Your task to perform on an android device: open sync settings in chrome Image 0: 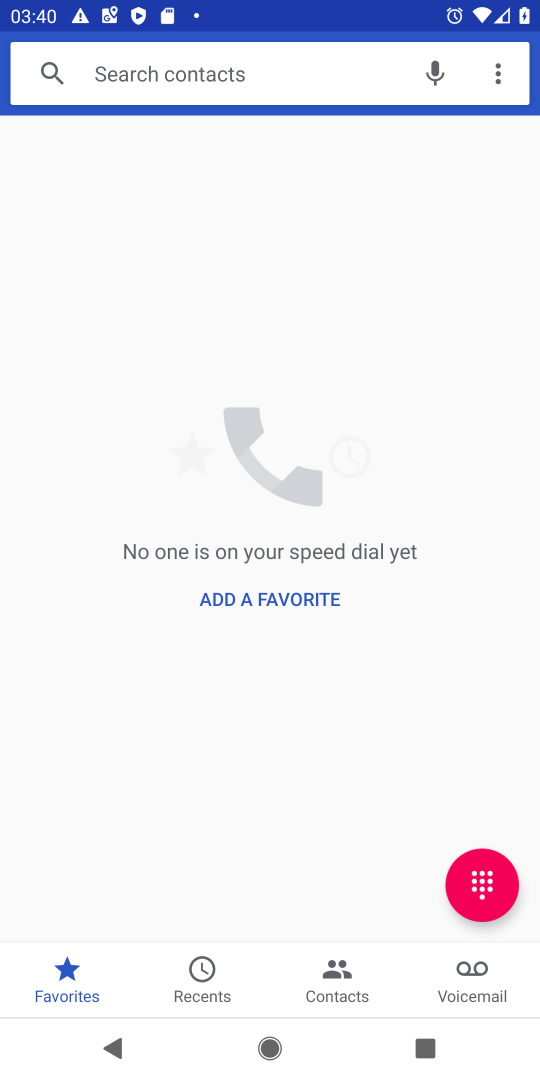
Step 0: press home button
Your task to perform on an android device: open sync settings in chrome Image 1: 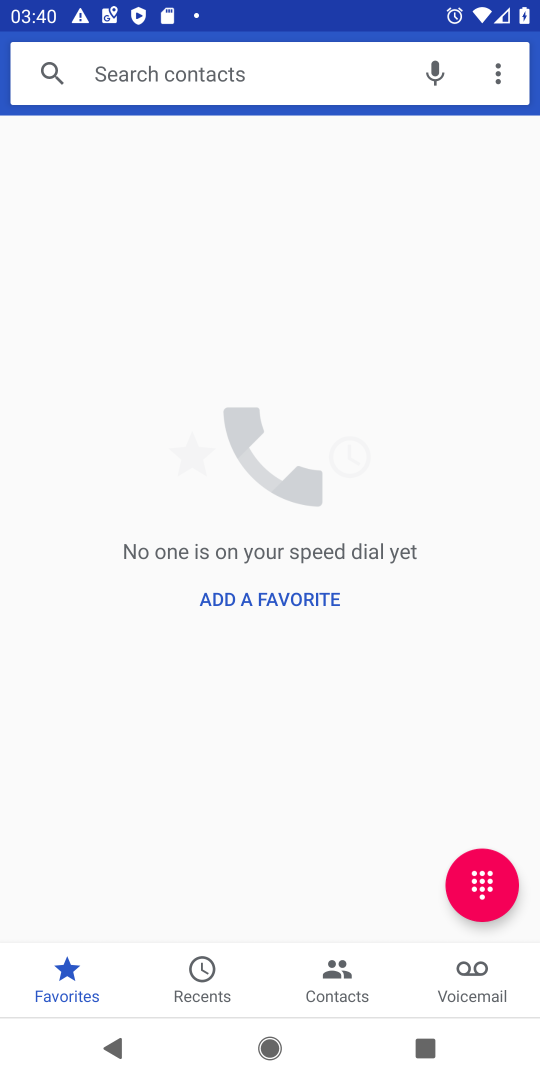
Step 1: press home button
Your task to perform on an android device: open sync settings in chrome Image 2: 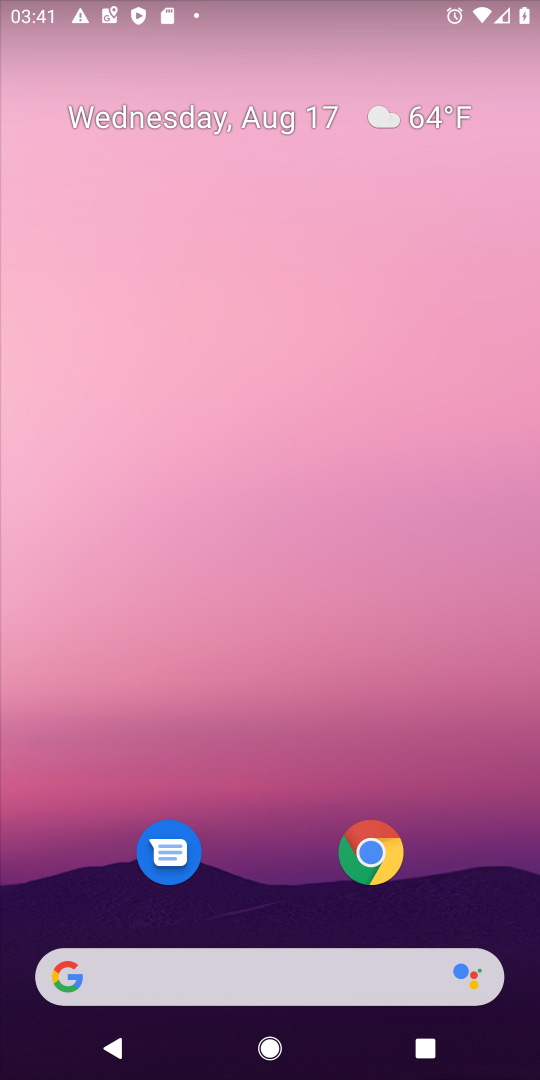
Step 2: drag from (288, 785) to (320, 230)
Your task to perform on an android device: open sync settings in chrome Image 3: 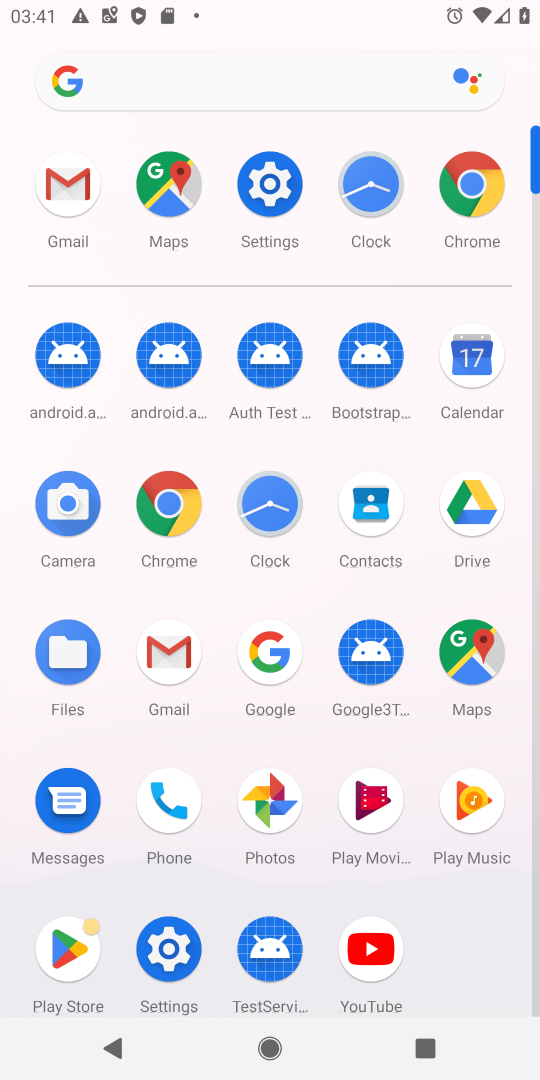
Step 3: click (170, 491)
Your task to perform on an android device: open sync settings in chrome Image 4: 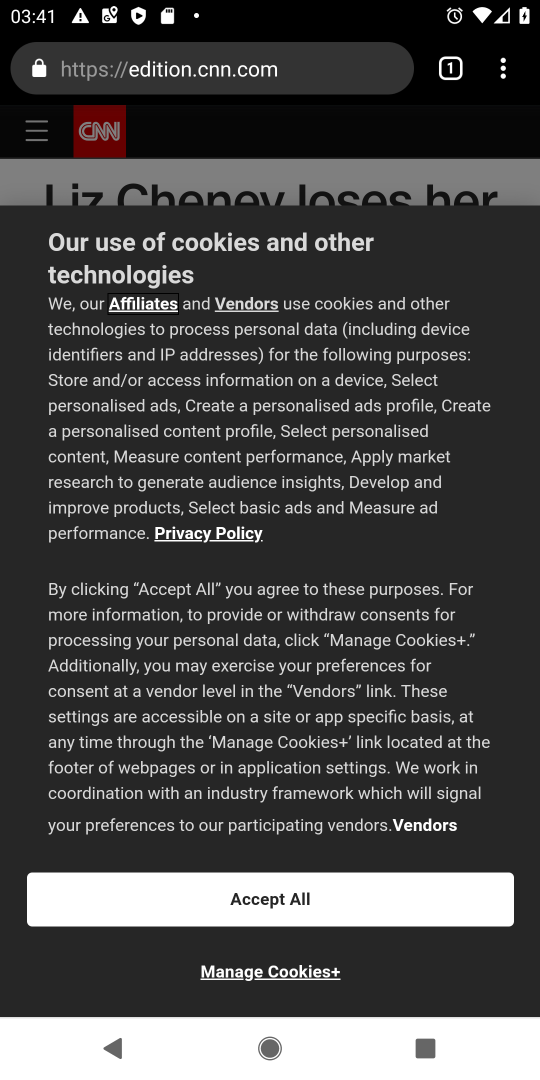
Step 4: drag from (502, 69) to (290, 762)
Your task to perform on an android device: open sync settings in chrome Image 5: 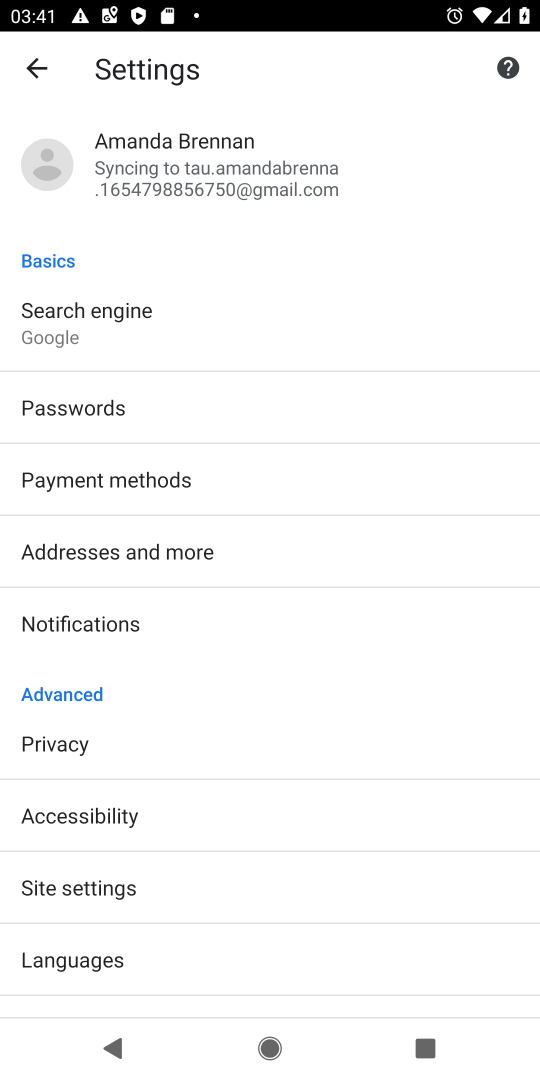
Step 5: drag from (141, 814) to (302, 257)
Your task to perform on an android device: open sync settings in chrome Image 6: 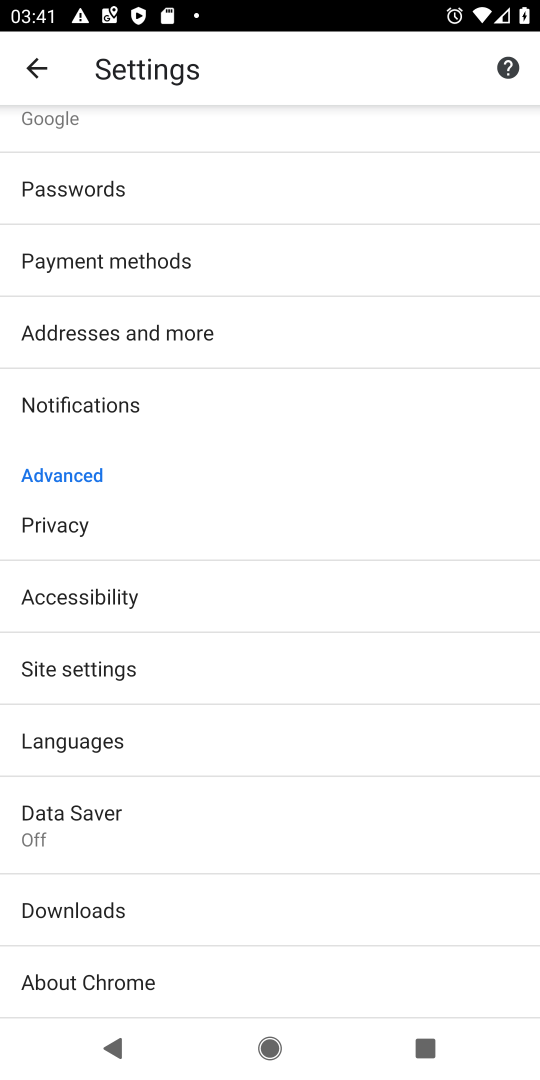
Step 6: drag from (279, 241) to (204, 954)
Your task to perform on an android device: open sync settings in chrome Image 7: 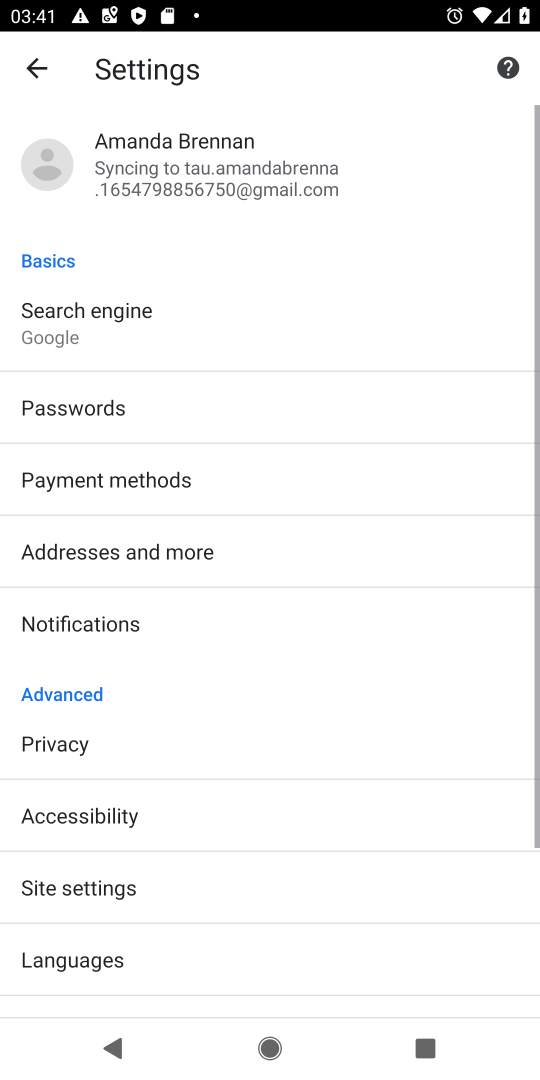
Step 7: click (186, 162)
Your task to perform on an android device: open sync settings in chrome Image 8: 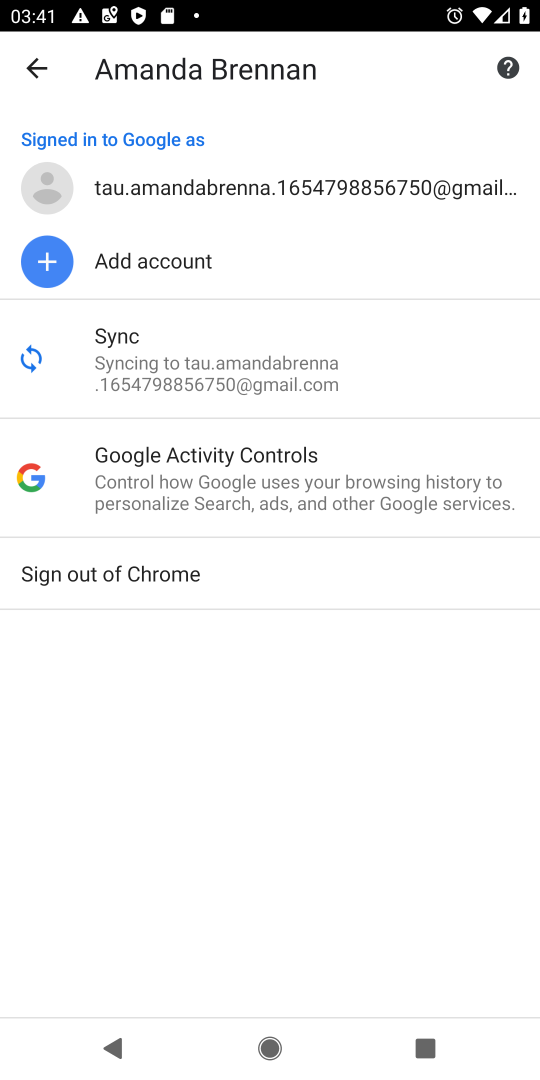
Step 8: click (150, 376)
Your task to perform on an android device: open sync settings in chrome Image 9: 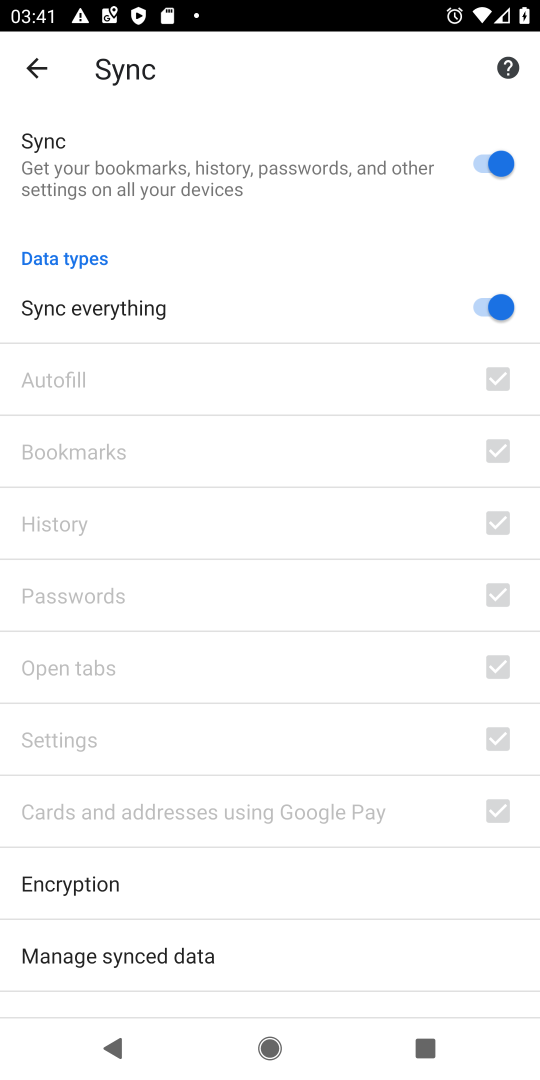
Step 9: task complete